Your task to perform on an android device: turn on location history Image 0: 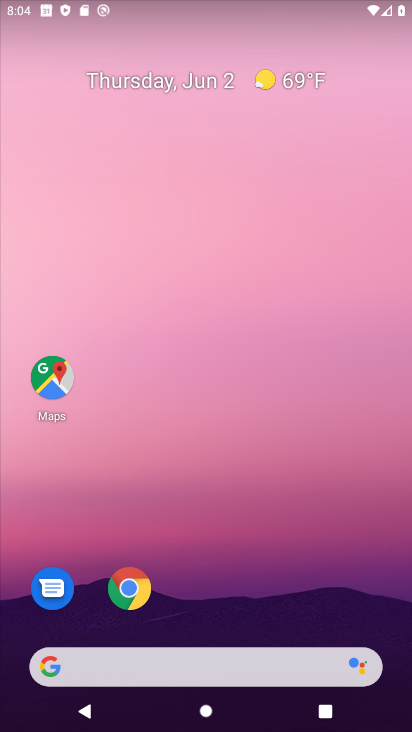
Step 0: drag from (245, 726) to (247, 152)
Your task to perform on an android device: turn on location history Image 1: 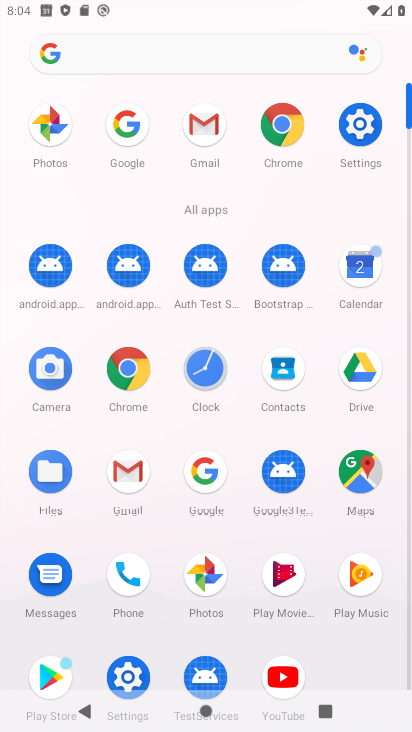
Step 1: click (363, 120)
Your task to perform on an android device: turn on location history Image 2: 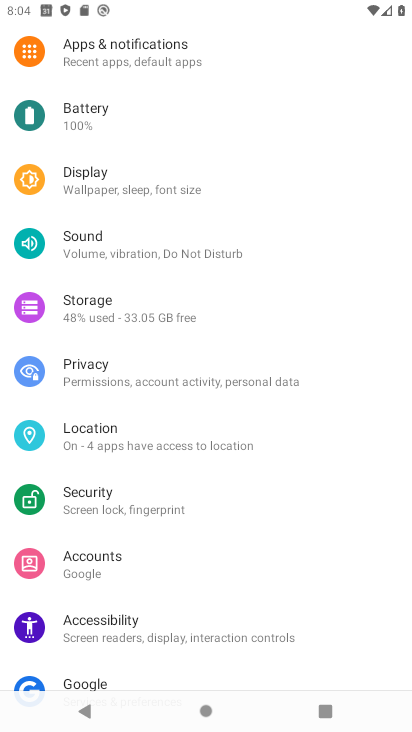
Step 2: click (104, 432)
Your task to perform on an android device: turn on location history Image 3: 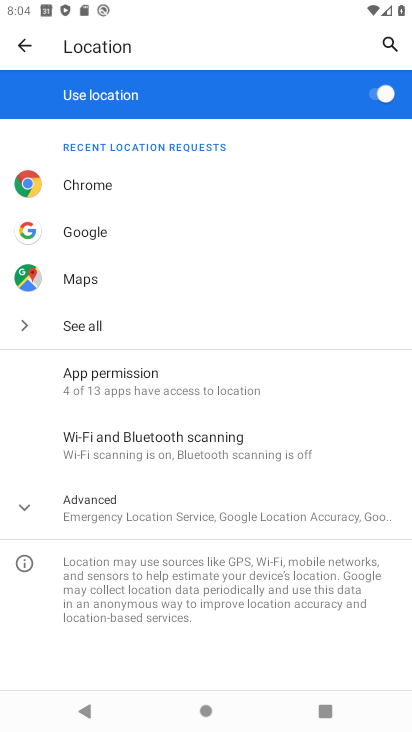
Step 3: click (70, 509)
Your task to perform on an android device: turn on location history Image 4: 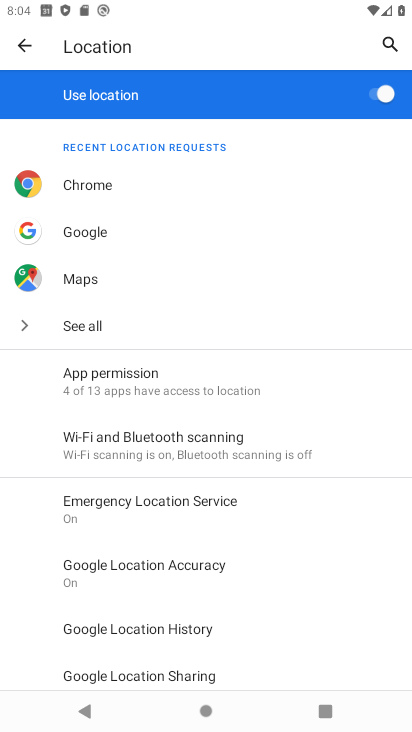
Step 4: click (125, 628)
Your task to perform on an android device: turn on location history Image 5: 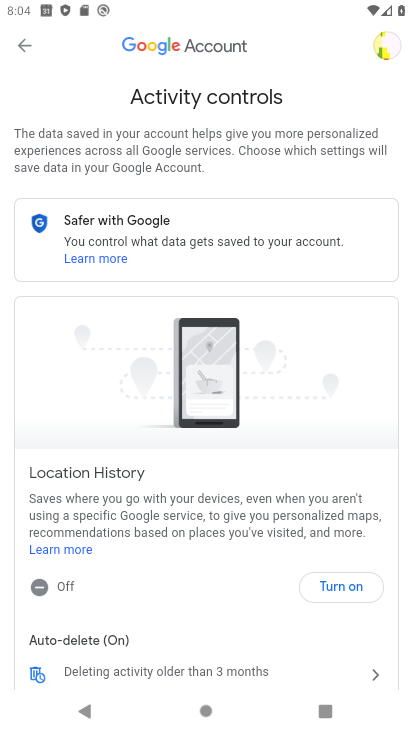
Step 5: click (339, 582)
Your task to perform on an android device: turn on location history Image 6: 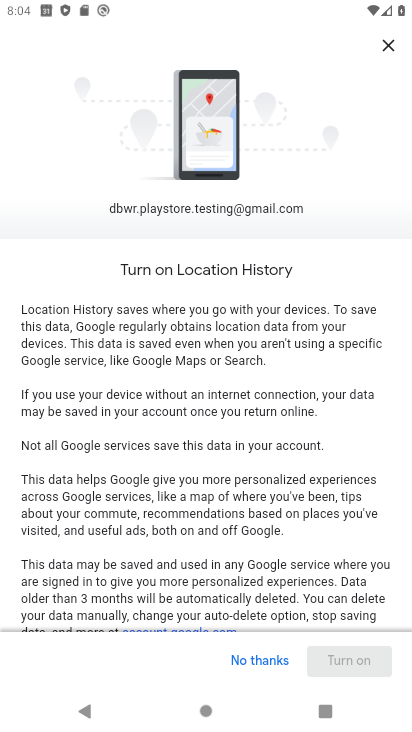
Step 6: drag from (296, 597) to (291, 257)
Your task to perform on an android device: turn on location history Image 7: 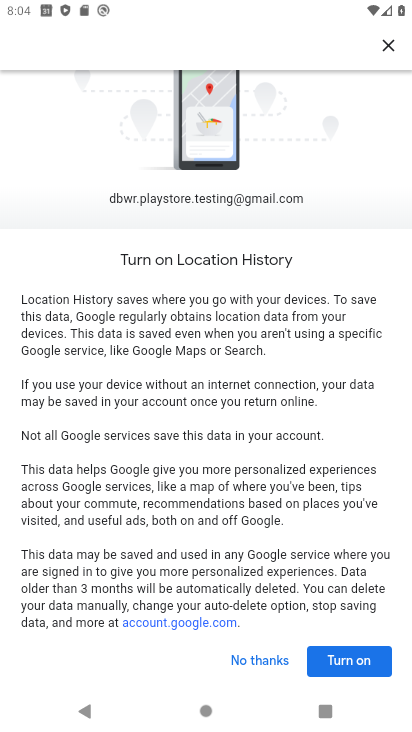
Step 7: click (356, 659)
Your task to perform on an android device: turn on location history Image 8: 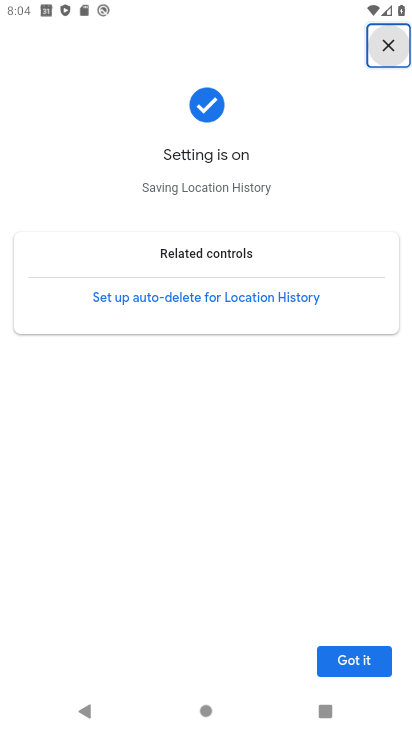
Step 8: click (345, 661)
Your task to perform on an android device: turn on location history Image 9: 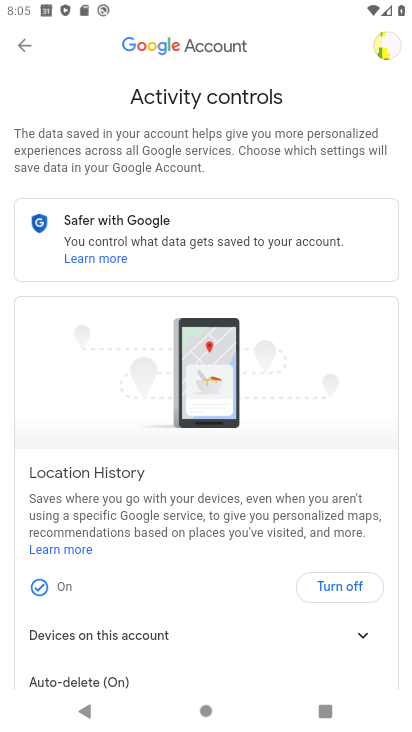
Step 9: task complete